Your task to perform on an android device: allow cookies in the chrome app Image 0: 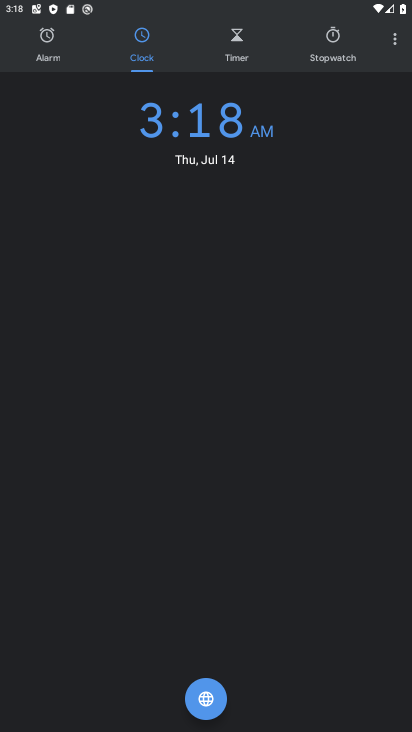
Step 0: press home button
Your task to perform on an android device: allow cookies in the chrome app Image 1: 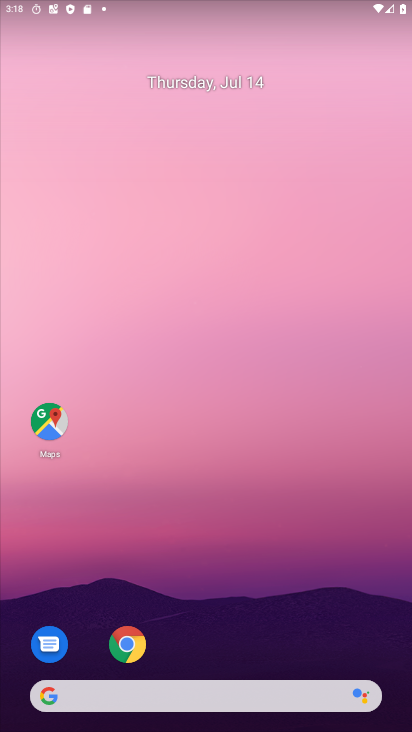
Step 1: drag from (16, 695) to (407, 35)
Your task to perform on an android device: allow cookies in the chrome app Image 2: 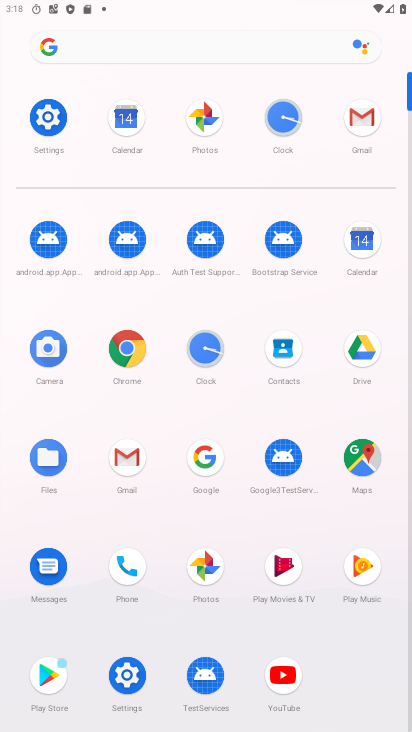
Step 2: click (129, 363)
Your task to perform on an android device: allow cookies in the chrome app Image 3: 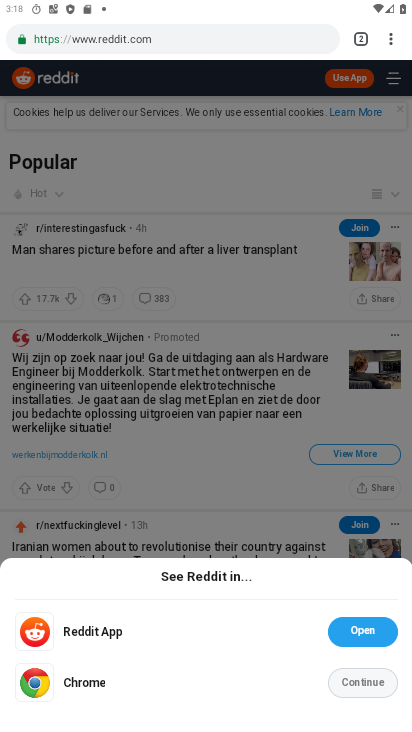
Step 3: click (387, 36)
Your task to perform on an android device: allow cookies in the chrome app Image 4: 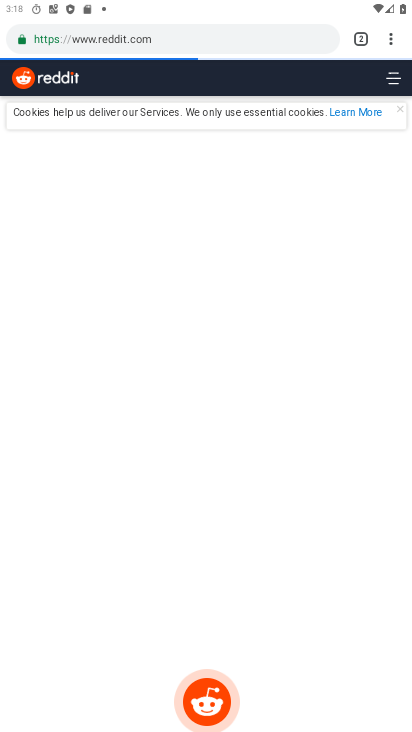
Step 4: click (392, 44)
Your task to perform on an android device: allow cookies in the chrome app Image 5: 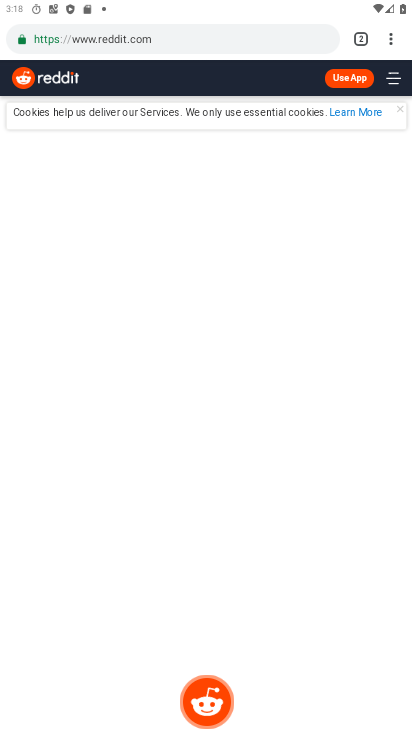
Step 5: task complete